Your task to perform on an android device: add a contact in the contacts app Image 0: 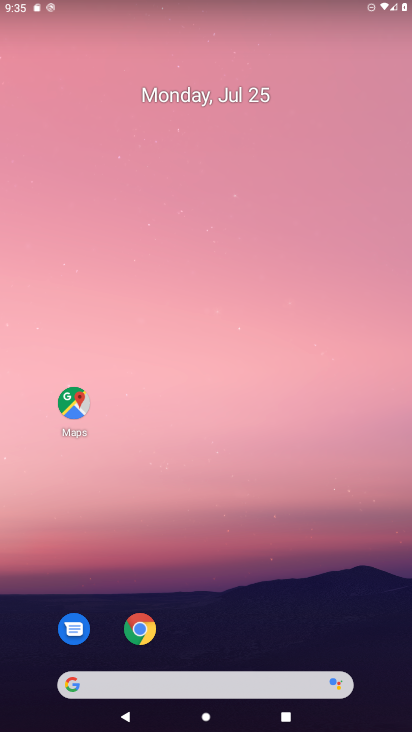
Step 0: drag from (282, 639) to (269, 1)
Your task to perform on an android device: add a contact in the contacts app Image 1: 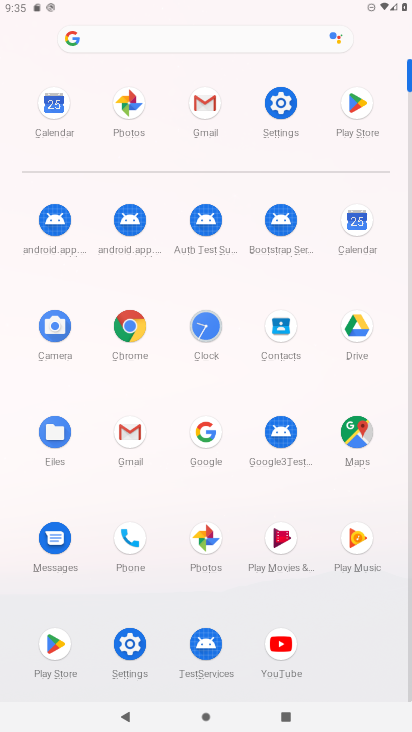
Step 1: click (276, 334)
Your task to perform on an android device: add a contact in the contacts app Image 2: 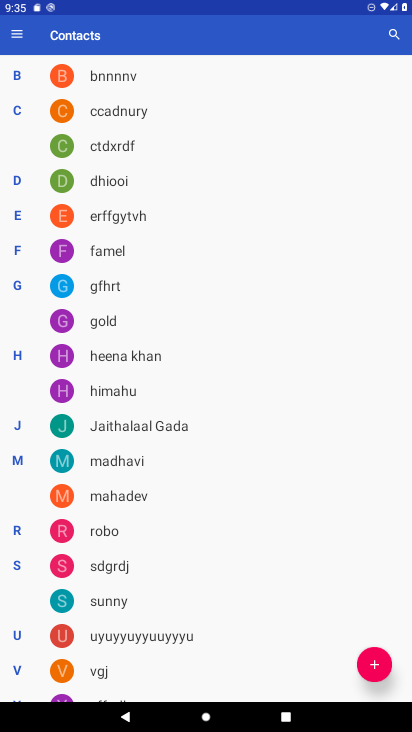
Step 2: click (372, 666)
Your task to perform on an android device: add a contact in the contacts app Image 3: 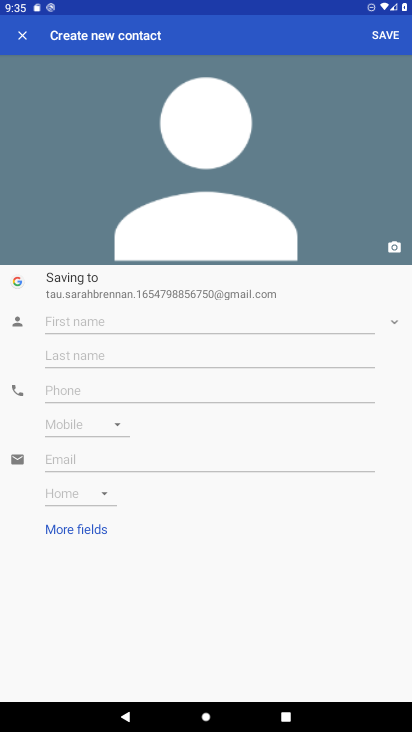
Step 3: click (84, 327)
Your task to perform on an android device: add a contact in the contacts app Image 4: 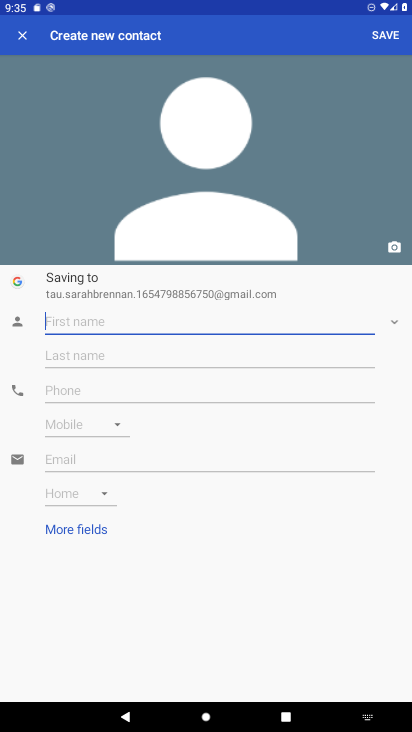
Step 4: type "httfcvg"
Your task to perform on an android device: add a contact in the contacts app Image 5: 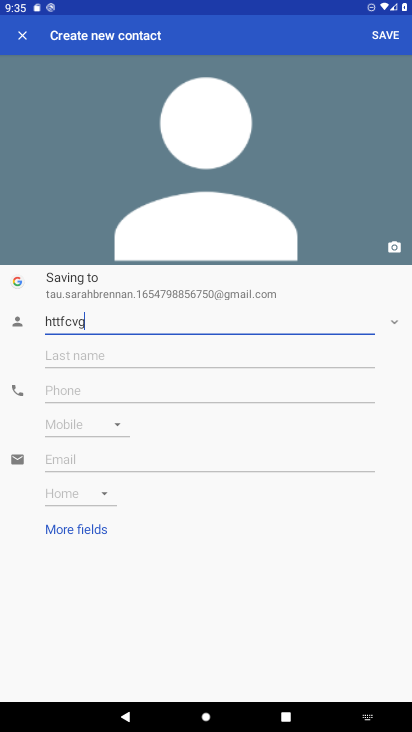
Step 5: click (99, 397)
Your task to perform on an android device: add a contact in the contacts app Image 6: 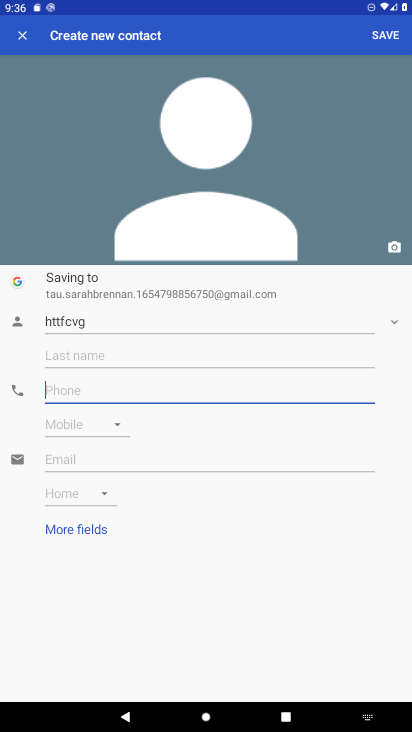
Step 6: click (93, 382)
Your task to perform on an android device: add a contact in the contacts app Image 7: 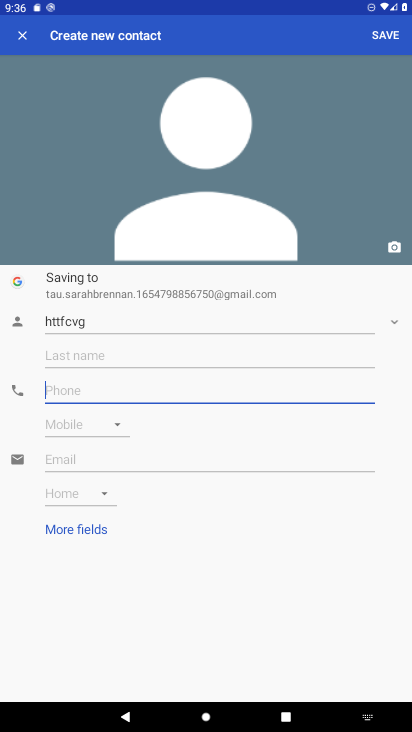
Step 7: type "876654434556"
Your task to perform on an android device: add a contact in the contacts app Image 8: 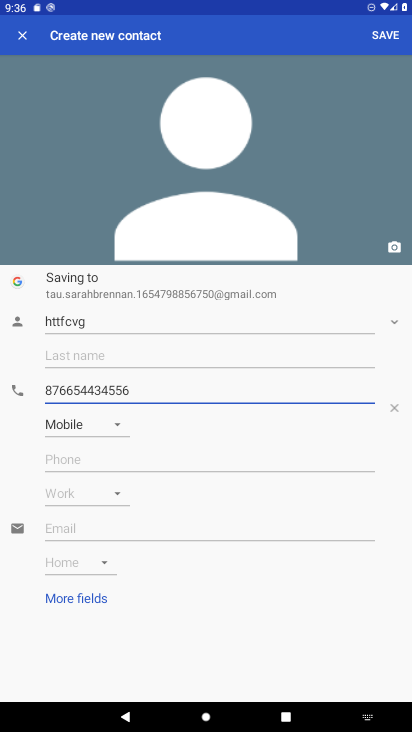
Step 8: click (384, 37)
Your task to perform on an android device: add a contact in the contacts app Image 9: 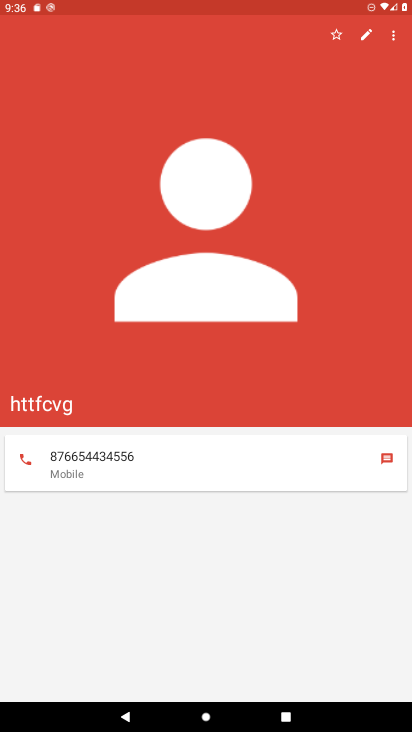
Step 9: task complete